Your task to perform on an android device: change keyboard looks Image 0: 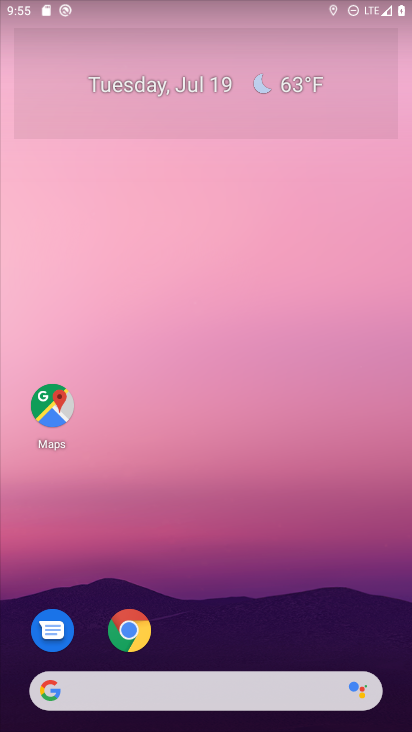
Step 0: drag from (198, 694) to (170, 190)
Your task to perform on an android device: change keyboard looks Image 1: 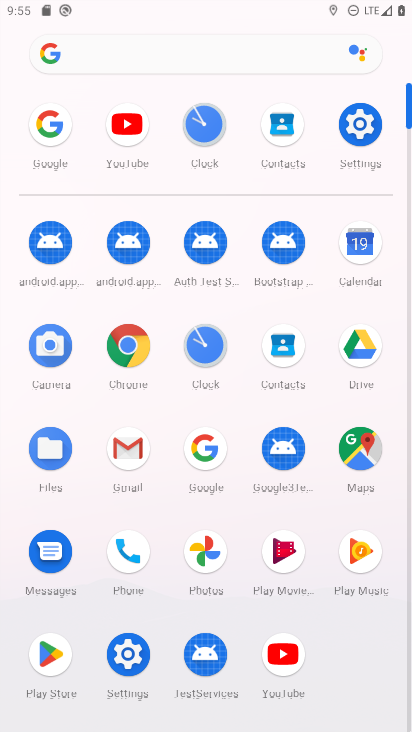
Step 1: click (361, 124)
Your task to perform on an android device: change keyboard looks Image 2: 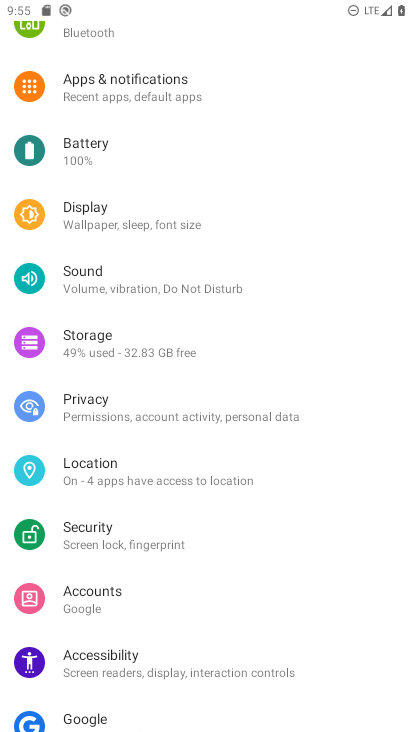
Step 2: drag from (147, 615) to (198, 463)
Your task to perform on an android device: change keyboard looks Image 3: 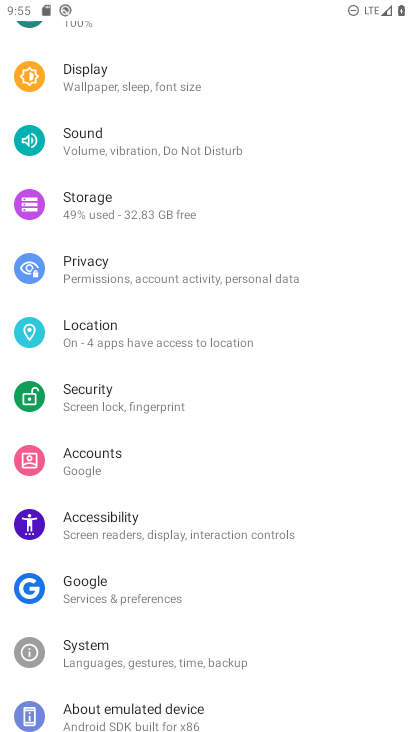
Step 3: click (111, 665)
Your task to perform on an android device: change keyboard looks Image 4: 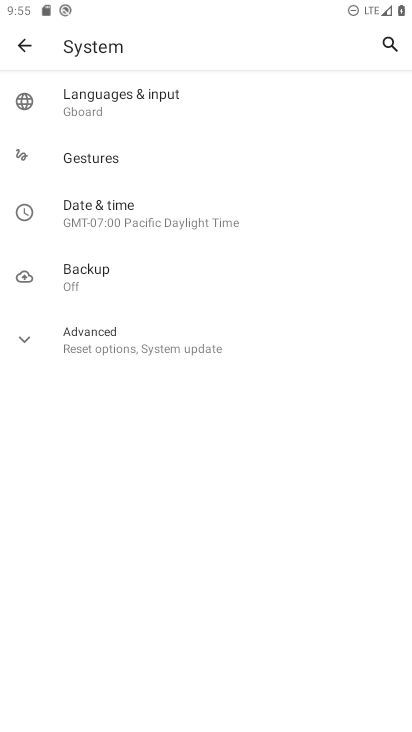
Step 4: click (78, 97)
Your task to perform on an android device: change keyboard looks Image 5: 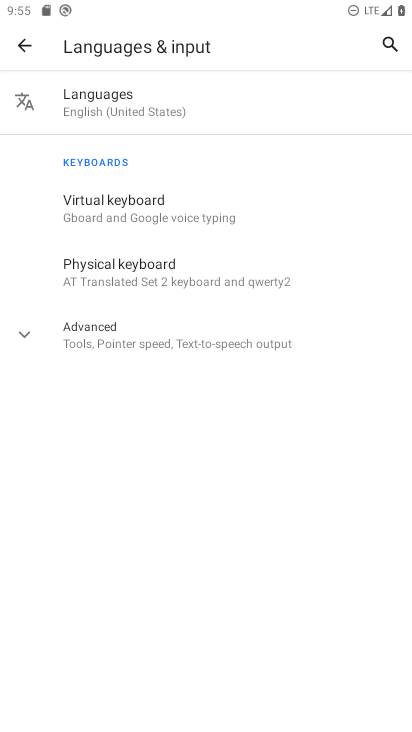
Step 5: click (118, 213)
Your task to perform on an android device: change keyboard looks Image 6: 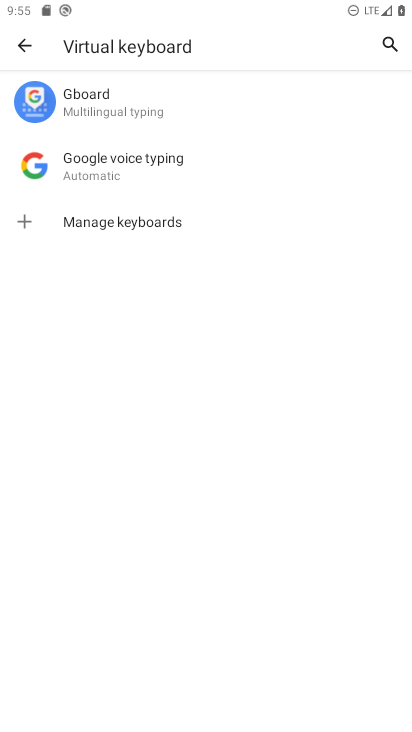
Step 6: click (92, 114)
Your task to perform on an android device: change keyboard looks Image 7: 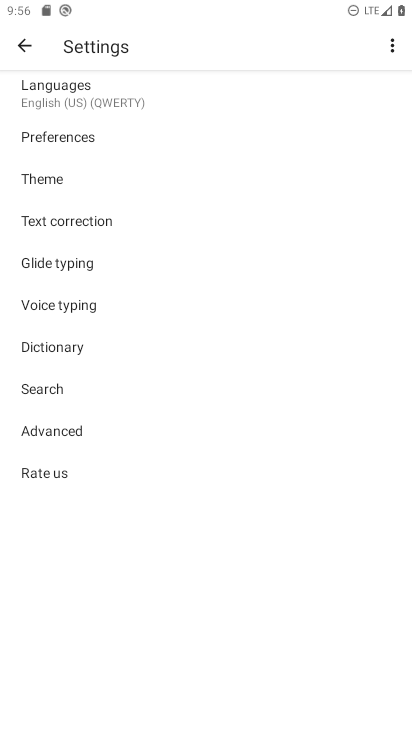
Step 7: click (49, 177)
Your task to perform on an android device: change keyboard looks Image 8: 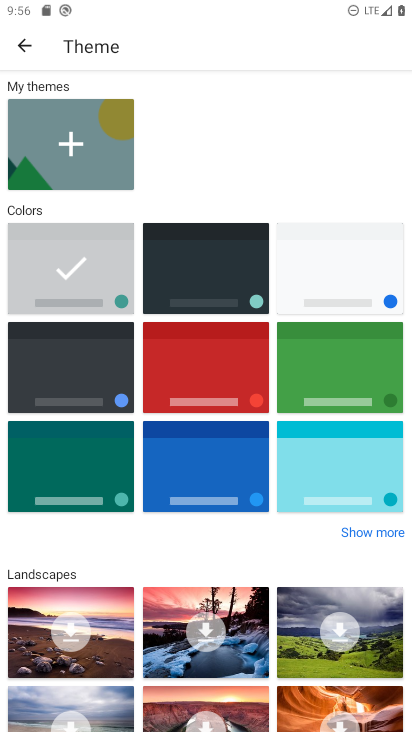
Step 8: click (191, 380)
Your task to perform on an android device: change keyboard looks Image 9: 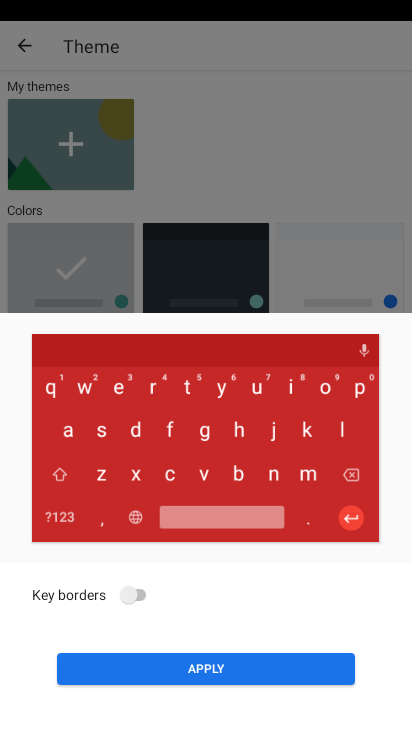
Step 9: click (137, 599)
Your task to perform on an android device: change keyboard looks Image 10: 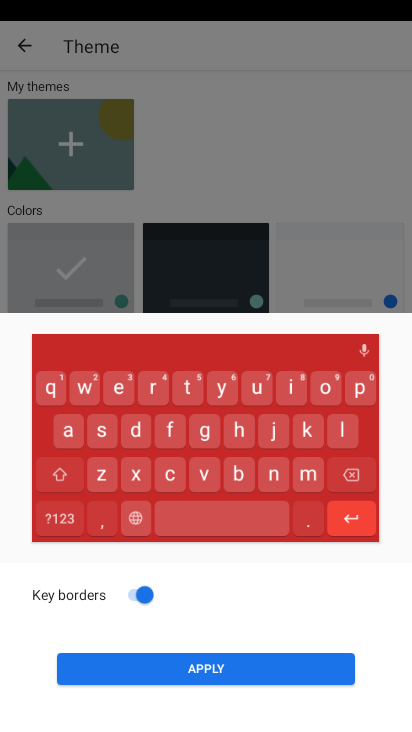
Step 10: click (219, 673)
Your task to perform on an android device: change keyboard looks Image 11: 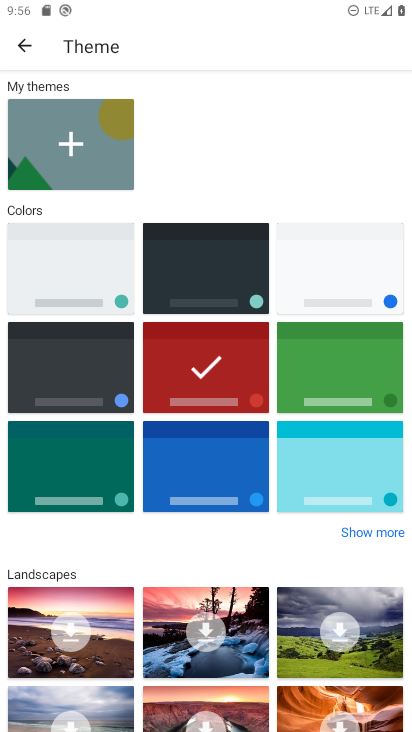
Step 11: task complete